Your task to perform on an android device: Open network settings Image 0: 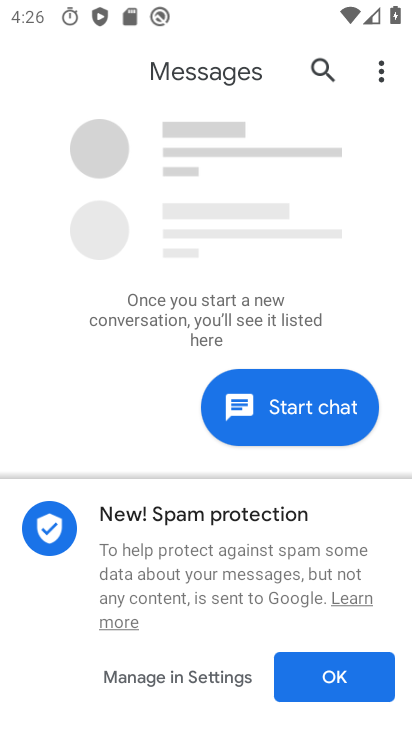
Step 0: drag from (247, 17) to (342, 563)
Your task to perform on an android device: Open network settings Image 1: 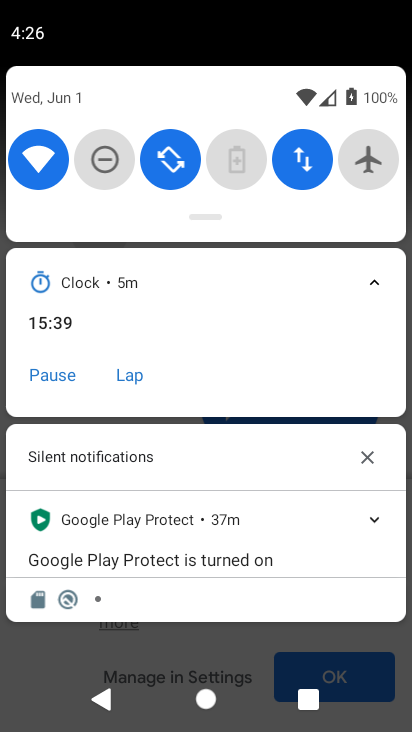
Step 1: click (291, 145)
Your task to perform on an android device: Open network settings Image 2: 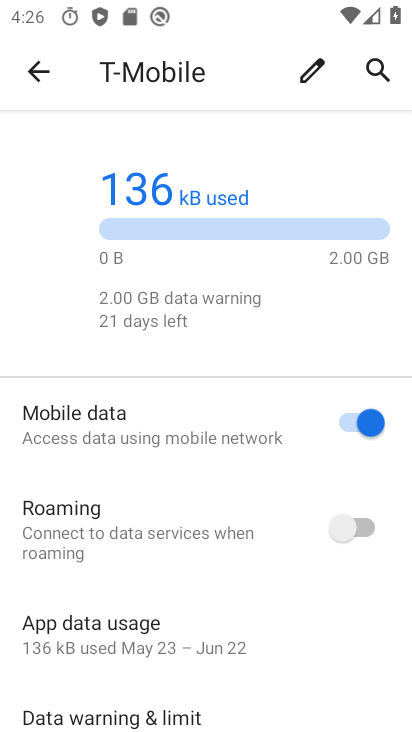
Step 2: task complete